Your task to perform on an android device: install app "Paramount+ | Peak Streaming" Image 0: 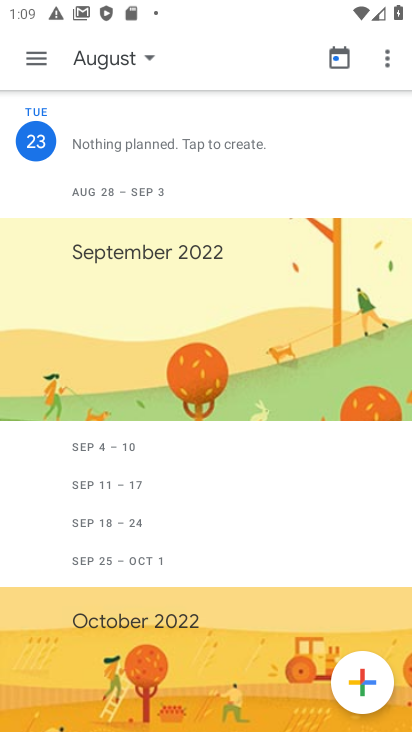
Step 0: press home button
Your task to perform on an android device: install app "Paramount+ | Peak Streaming" Image 1: 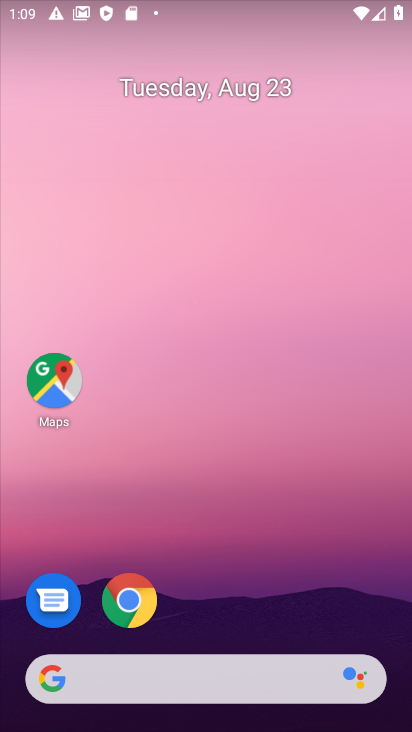
Step 1: drag from (188, 592) to (240, 96)
Your task to perform on an android device: install app "Paramount+ | Peak Streaming" Image 2: 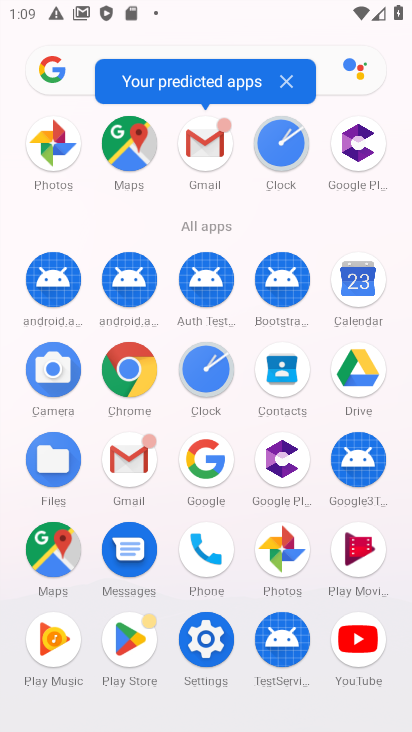
Step 2: click (131, 639)
Your task to perform on an android device: install app "Paramount+ | Peak Streaming" Image 3: 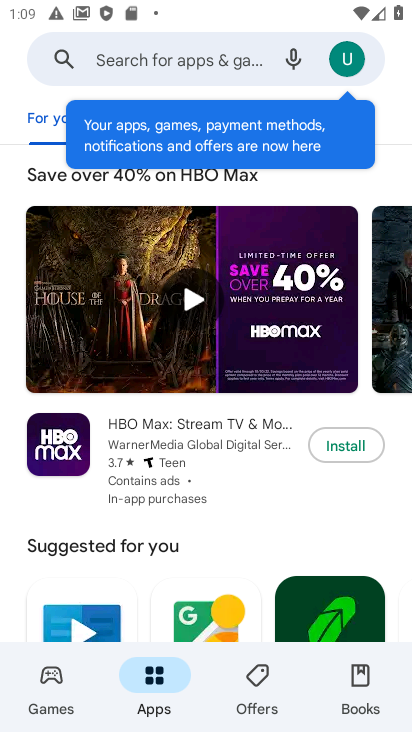
Step 3: click (210, 62)
Your task to perform on an android device: install app "Paramount+ | Peak Streaming" Image 4: 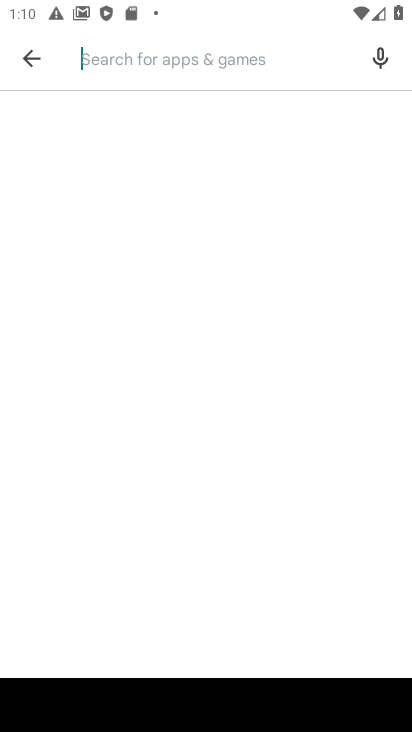
Step 4: type "Paramount+ | Peak Streaming"
Your task to perform on an android device: install app "Paramount+ | Peak Streaming" Image 5: 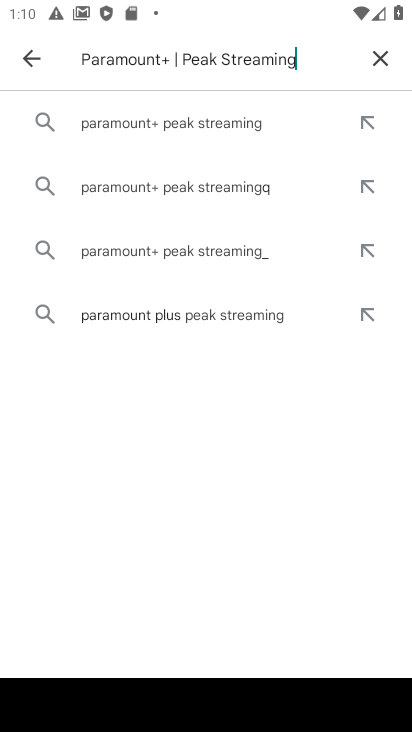
Step 5: click (160, 125)
Your task to perform on an android device: install app "Paramount+ | Peak Streaming" Image 6: 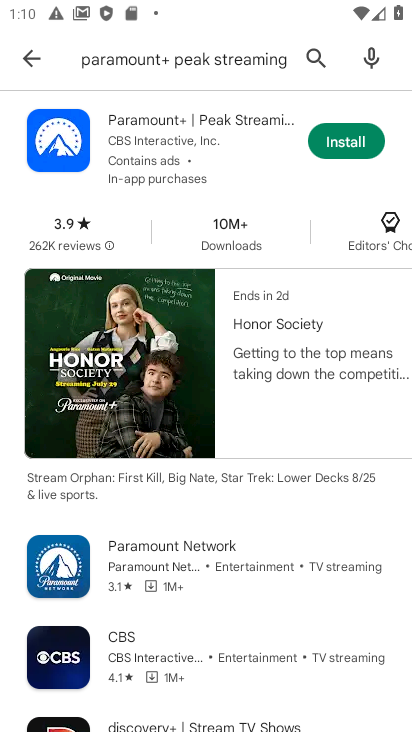
Step 6: click (350, 138)
Your task to perform on an android device: install app "Paramount+ | Peak Streaming" Image 7: 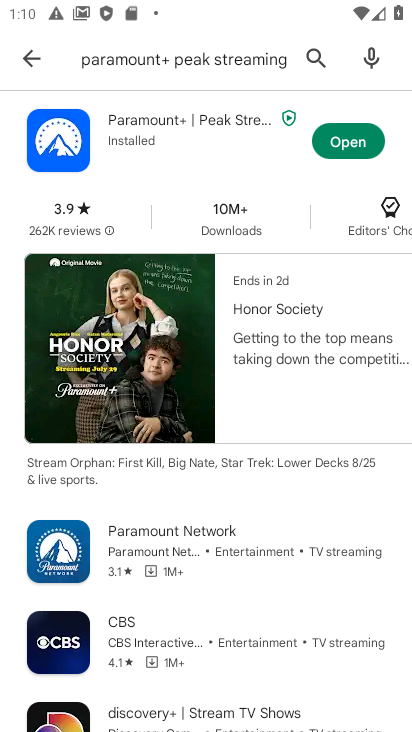
Step 7: click (338, 145)
Your task to perform on an android device: install app "Paramount+ | Peak Streaming" Image 8: 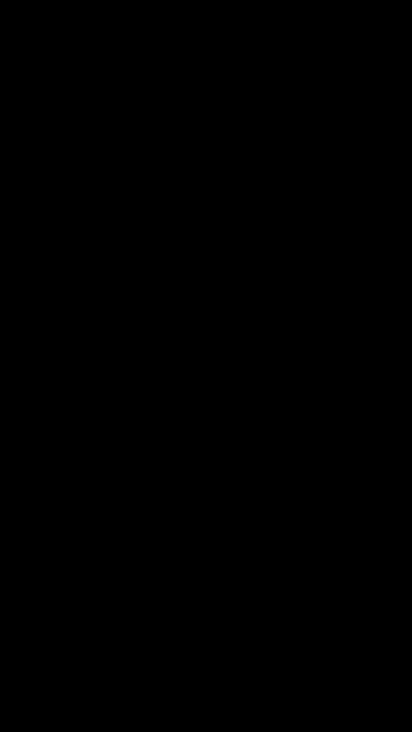
Step 8: task complete